Your task to perform on an android device: Open wifi settings Image 0: 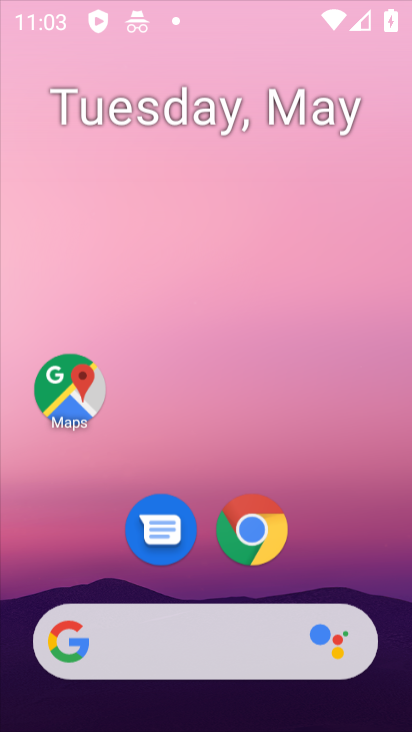
Step 0: click (407, 434)
Your task to perform on an android device: Open wifi settings Image 1: 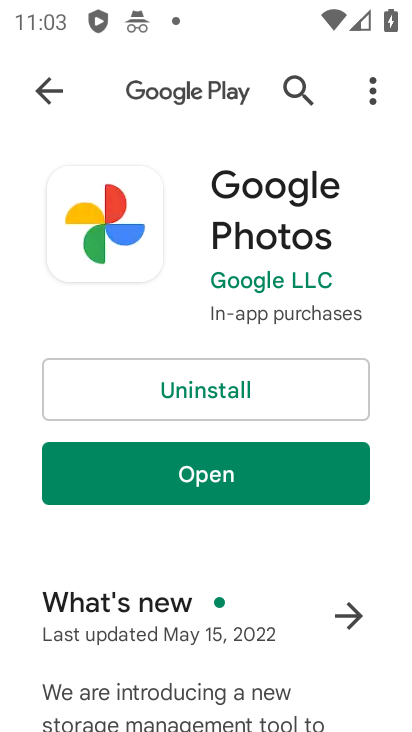
Step 1: press home button
Your task to perform on an android device: Open wifi settings Image 2: 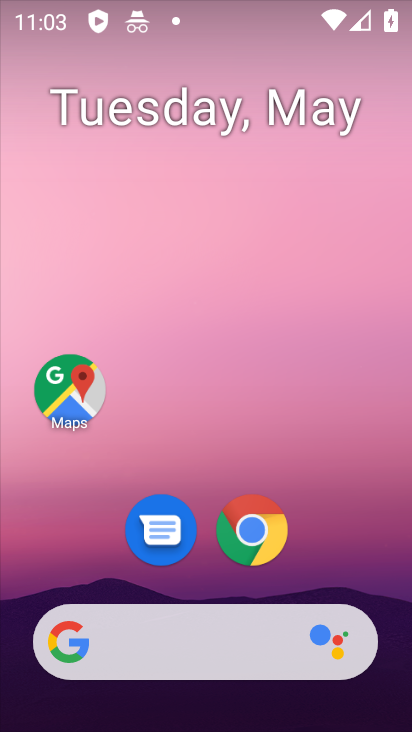
Step 2: drag from (216, 372) to (263, 107)
Your task to perform on an android device: Open wifi settings Image 3: 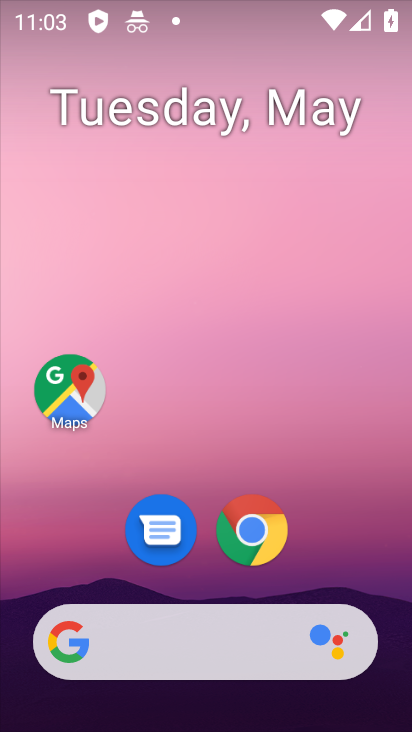
Step 3: drag from (263, 387) to (284, 78)
Your task to perform on an android device: Open wifi settings Image 4: 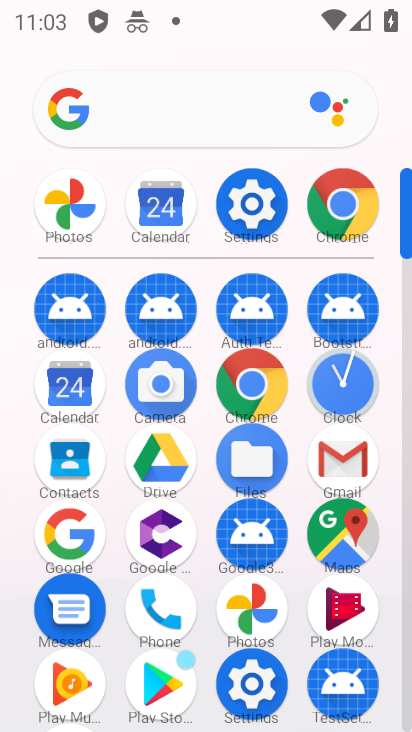
Step 4: click (233, 214)
Your task to perform on an android device: Open wifi settings Image 5: 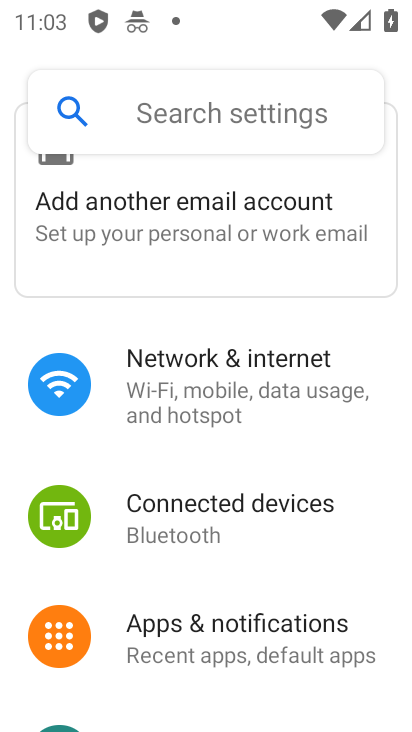
Step 5: click (174, 382)
Your task to perform on an android device: Open wifi settings Image 6: 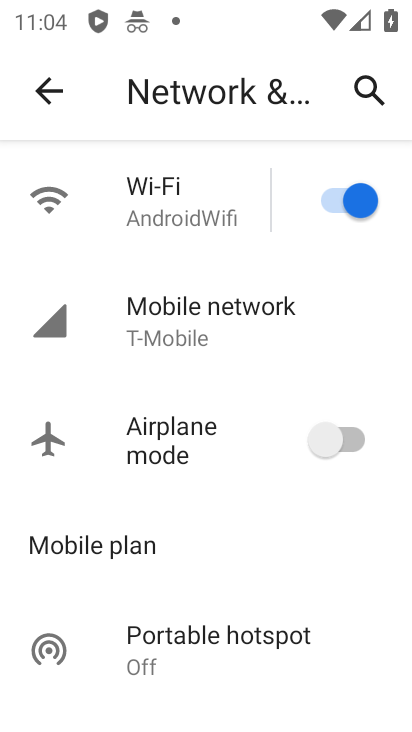
Step 6: click (165, 175)
Your task to perform on an android device: Open wifi settings Image 7: 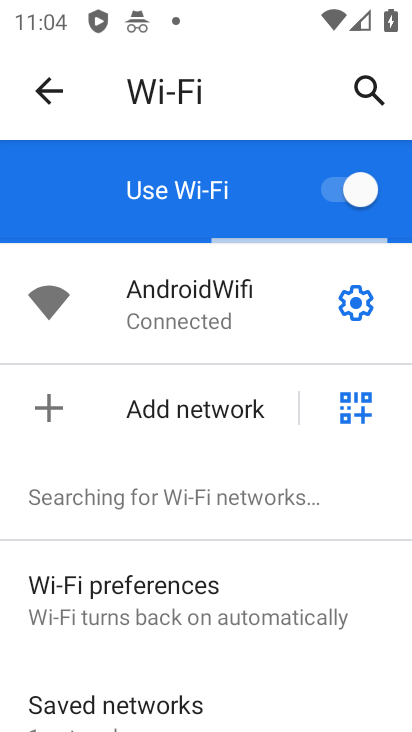
Step 7: click (347, 303)
Your task to perform on an android device: Open wifi settings Image 8: 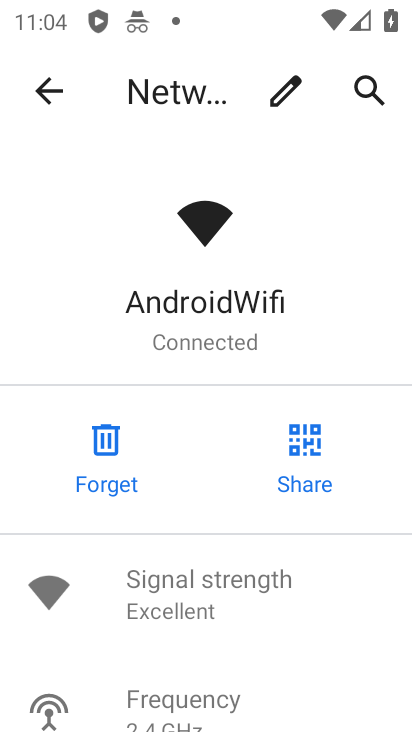
Step 8: task complete